Your task to perform on an android device: Do I have any events tomorrow? Image 0: 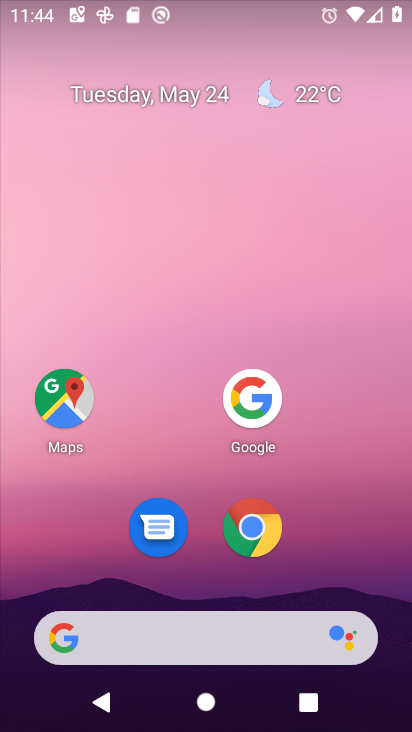
Step 0: drag from (239, 658) to (322, 163)
Your task to perform on an android device: Do I have any events tomorrow? Image 1: 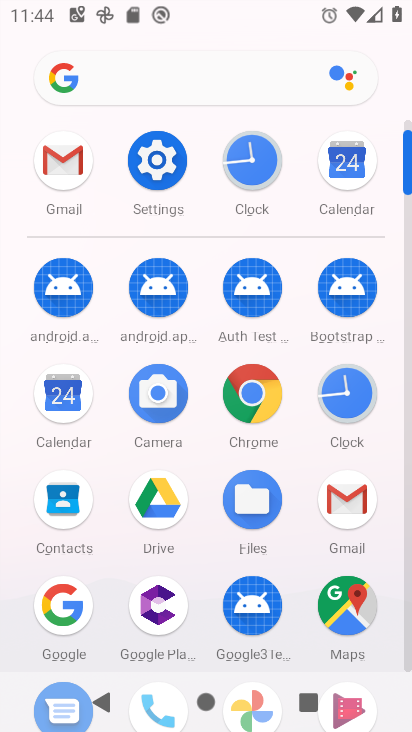
Step 1: click (148, 149)
Your task to perform on an android device: Do I have any events tomorrow? Image 2: 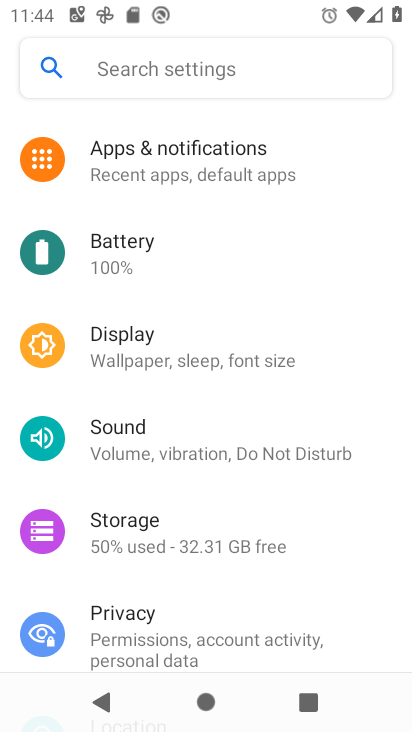
Step 2: press home button
Your task to perform on an android device: Do I have any events tomorrow? Image 3: 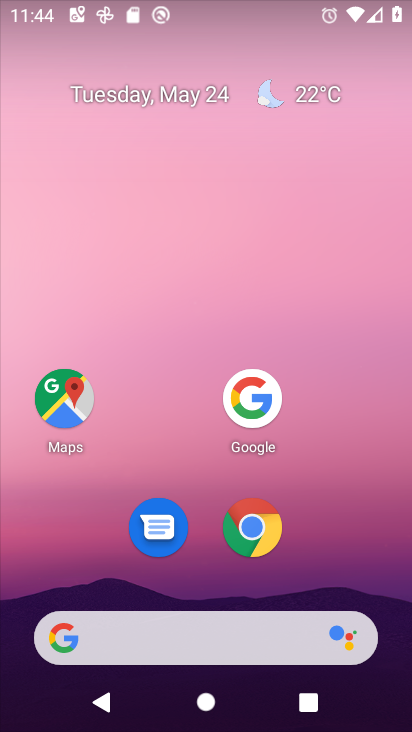
Step 3: drag from (203, 634) to (269, 139)
Your task to perform on an android device: Do I have any events tomorrow? Image 4: 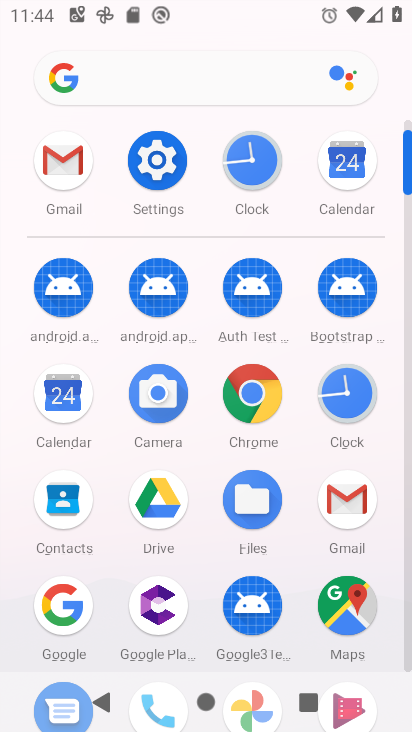
Step 4: click (43, 415)
Your task to perform on an android device: Do I have any events tomorrow? Image 5: 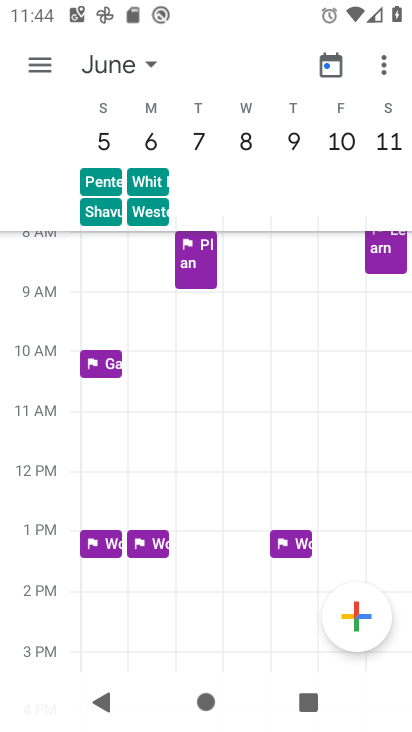
Step 5: click (112, 70)
Your task to perform on an android device: Do I have any events tomorrow? Image 6: 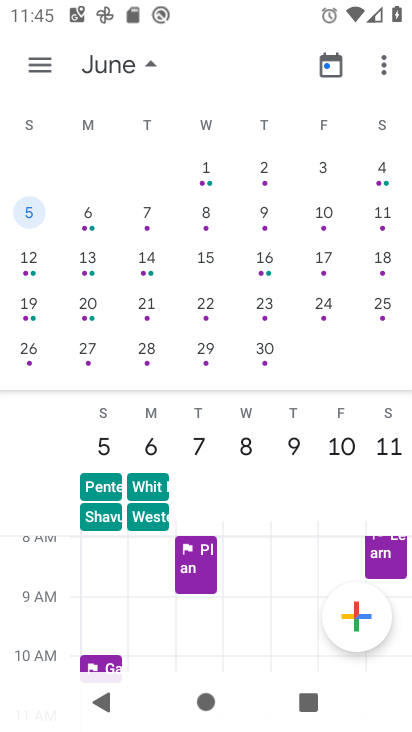
Step 6: drag from (125, 213) to (375, 328)
Your task to perform on an android device: Do I have any events tomorrow? Image 7: 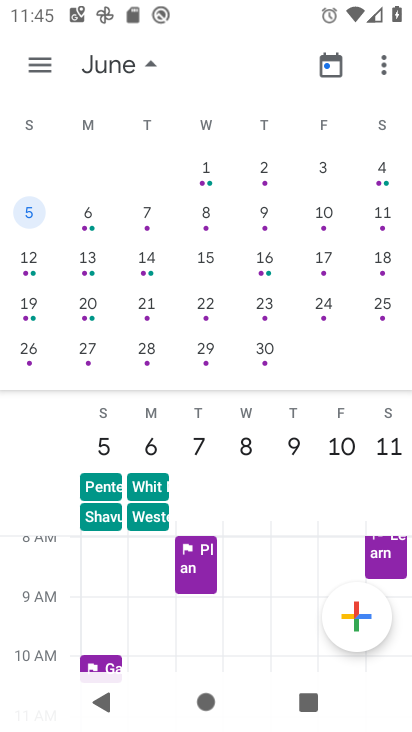
Step 7: drag from (133, 182) to (409, 253)
Your task to perform on an android device: Do I have any events tomorrow? Image 8: 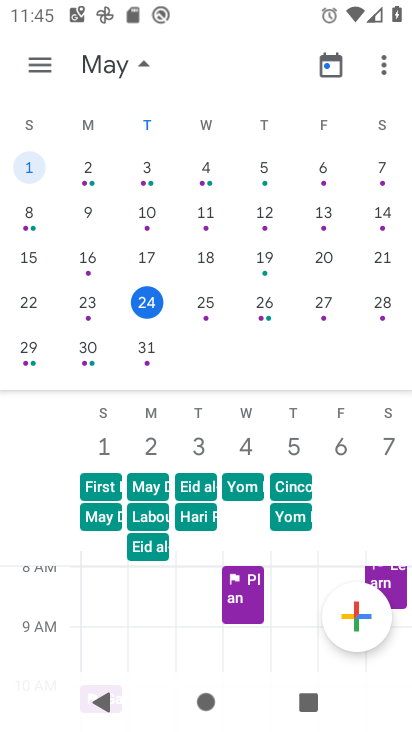
Step 8: click (210, 315)
Your task to perform on an android device: Do I have any events tomorrow? Image 9: 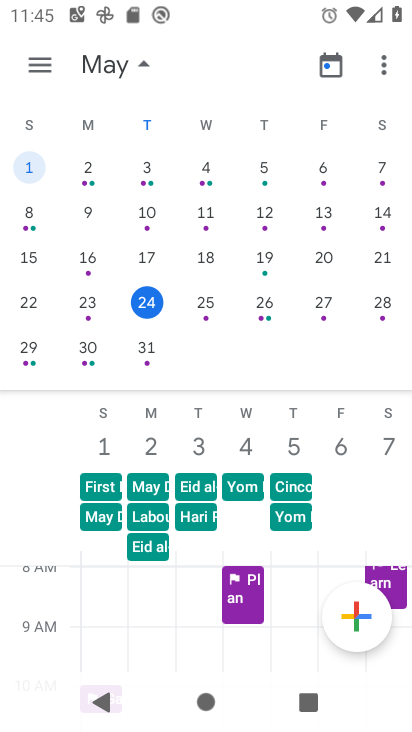
Step 9: click (211, 294)
Your task to perform on an android device: Do I have any events tomorrow? Image 10: 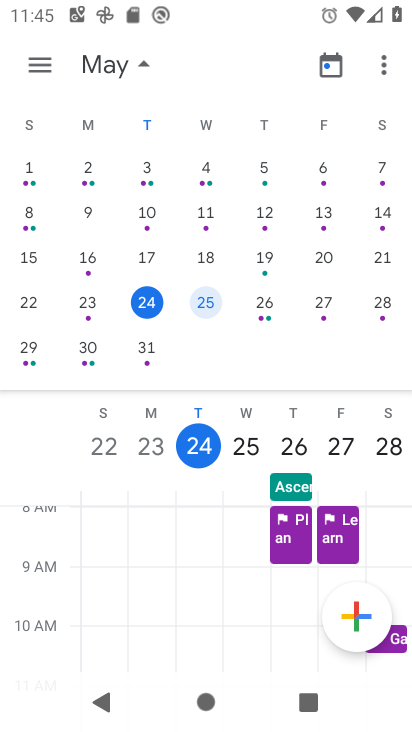
Step 10: click (48, 74)
Your task to perform on an android device: Do I have any events tomorrow? Image 11: 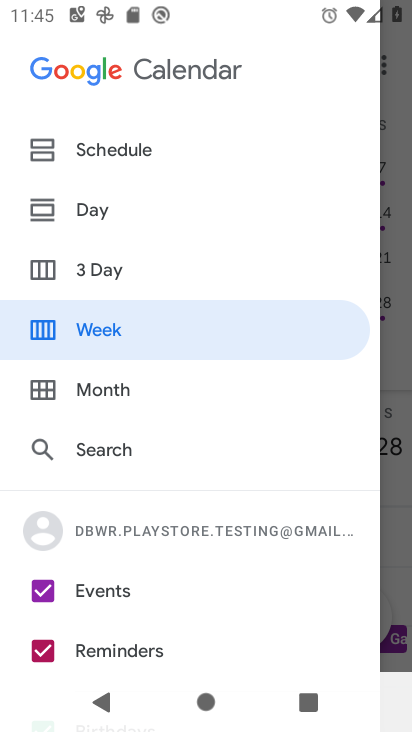
Step 11: click (136, 145)
Your task to perform on an android device: Do I have any events tomorrow? Image 12: 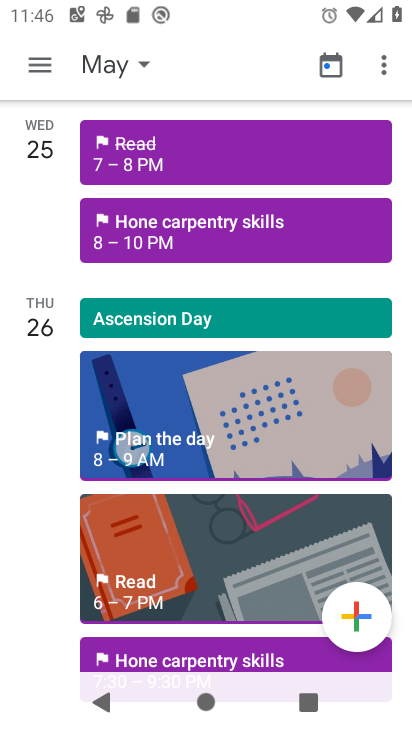
Step 12: click (251, 155)
Your task to perform on an android device: Do I have any events tomorrow? Image 13: 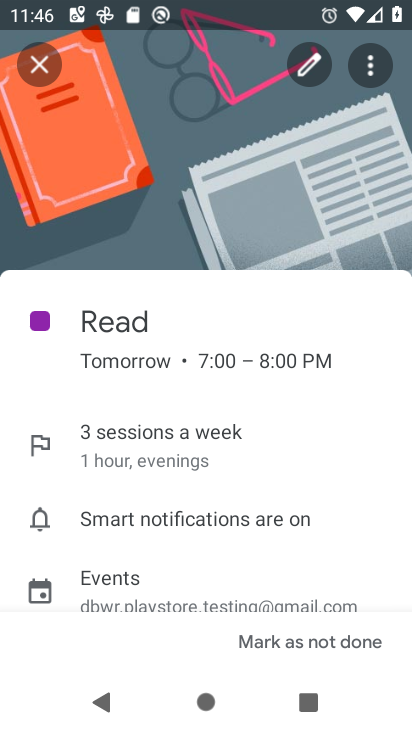
Step 13: task complete